Your task to perform on an android device: Open Youtube and go to the subscriptions tab Image 0: 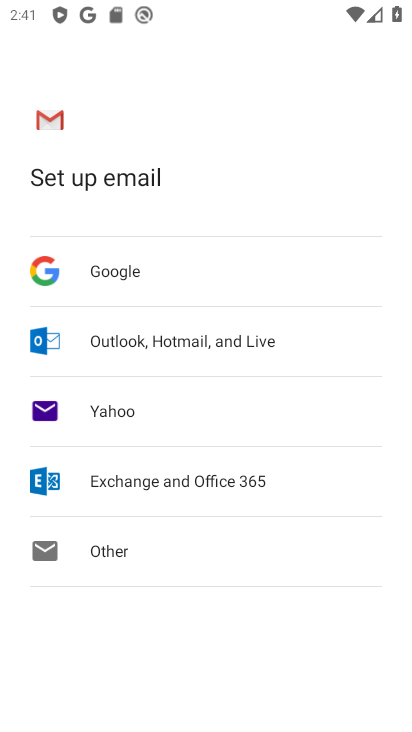
Step 0: press home button
Your task to perform on an android device: Open Youtube and go to the subscriptions tab Image 1: 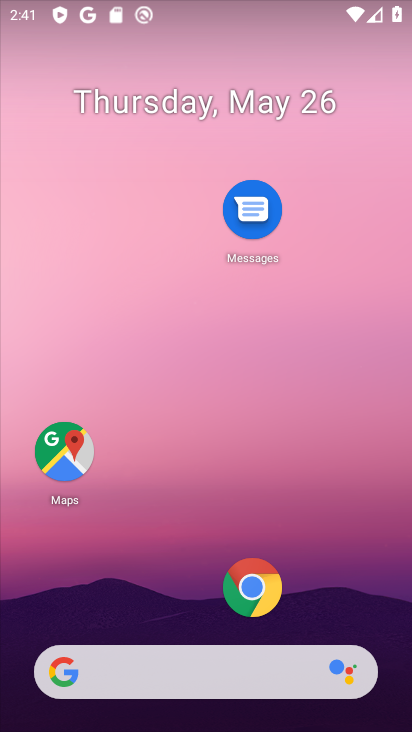
Step 1: drag from (159, 614) to (197, 234)
Your task to perform on an android device: Open Youtube and go to the subscriptions tab Image 2: 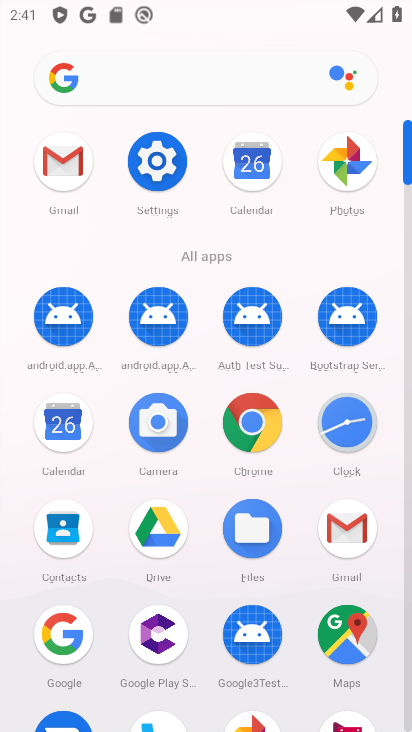
Step 2: drag from (208, 624) to (269, 212)
Your task to perform on an android device: Open Youtube and go to the subscriptions tab Image 3: 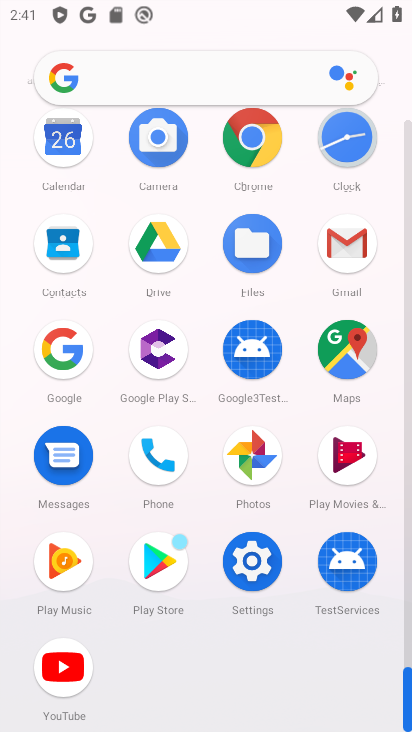
Step 3: click (68, 671)
Your task to perform on an android device: Open Youtube and go to the subscriptions tab Image 4: 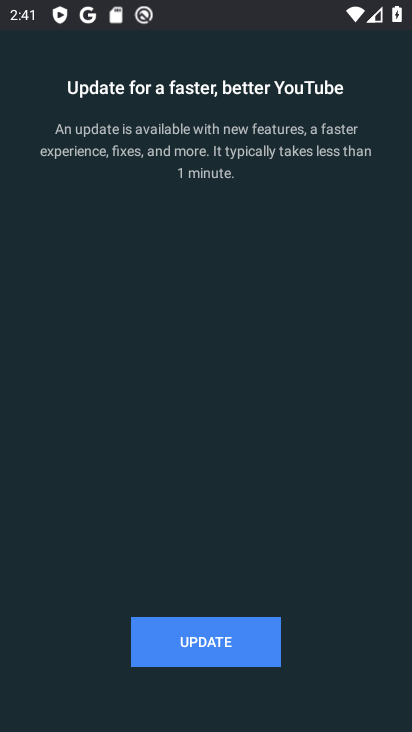
Step 4: click (200, 637)
Your task to perform on an android device: Open Youtube and go to the subscriptions tab Image 5: 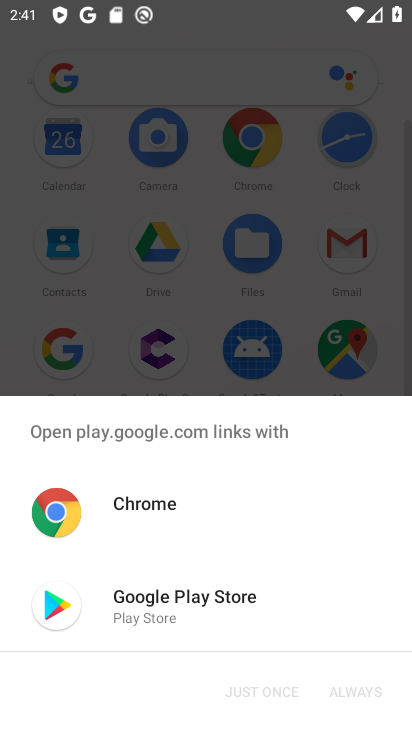
Step 5: click (176, 602)
Your task to perform on an android device: Open Youtube and go to the subscriptions tab Image 6: 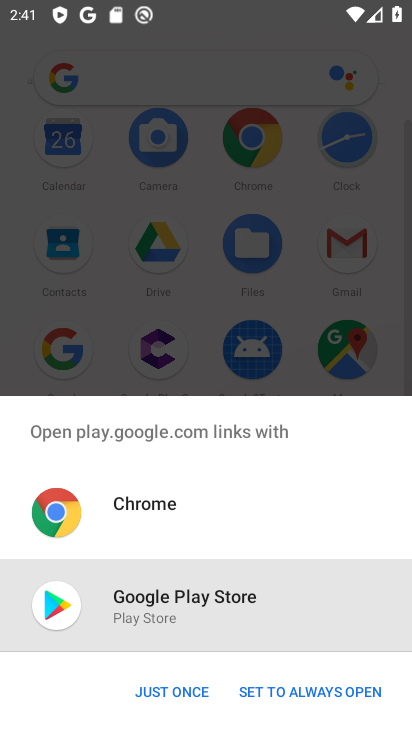
Step 6: click (155, 693)
Your task to perform on an android device: Open Youtube and go to the subscriptions tab Image 7: 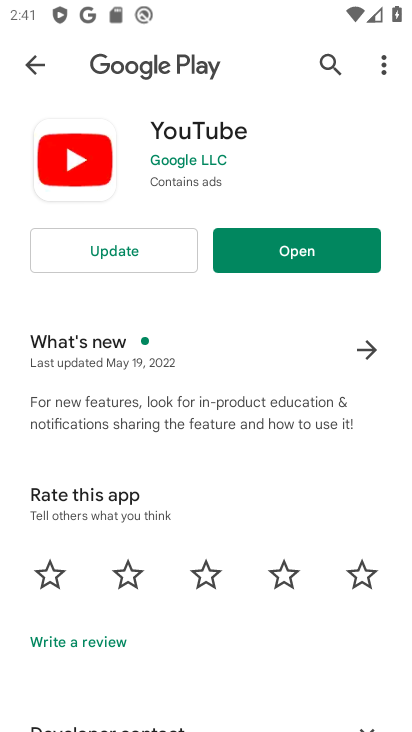
Step 7: click (147, 250)
Your task to perform on an android device: Open Youtube and go to the subscriptions tab Image 8: 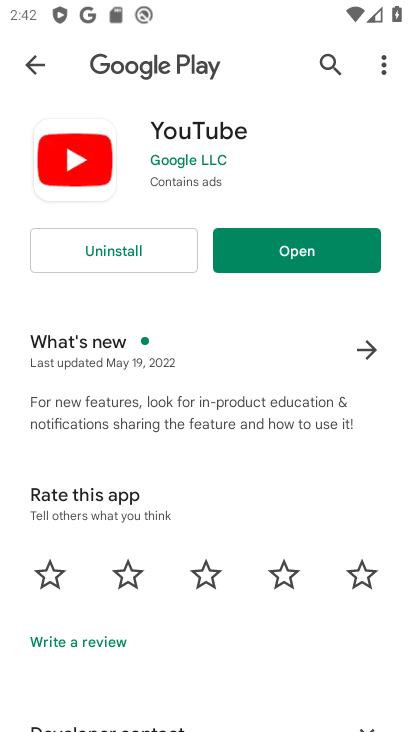
Step 8: click (272, 249)
Your task to perform on an android device: Open Youtube and go to the subscriptions tab Image 9: 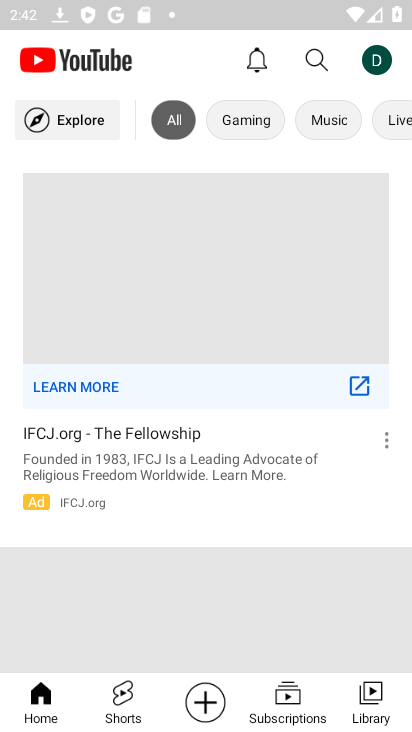
Step 9: click (280, 705)
Your task to perform on an android device: Open Youtube and go to the subscriptions tab Image 10: 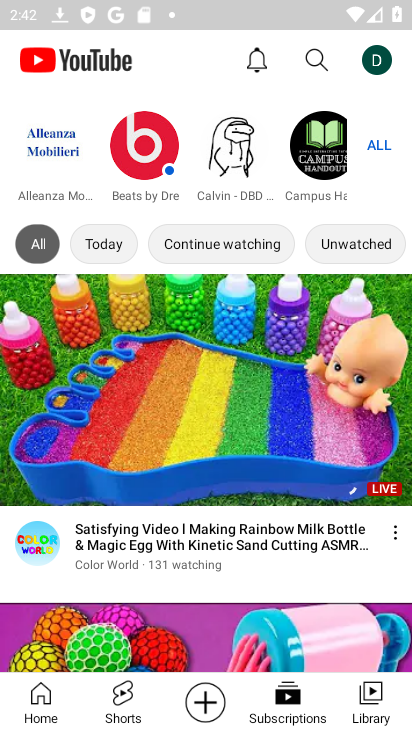
Step 10: task complete